Your task to perform on an android device: Open settings Image 0: 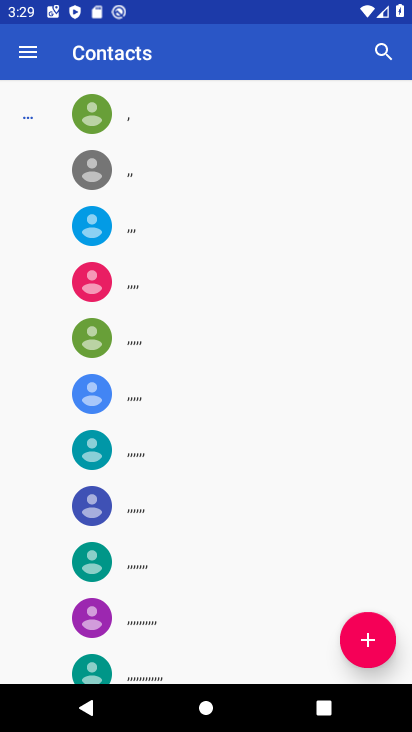
Step 0: press home button
Your task to perform on an android device: Open settings Image 1: 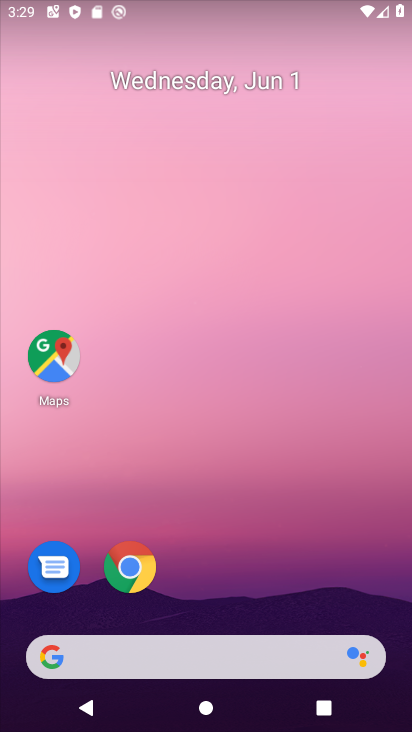
Step 1: drag from (157, 634) to (155, 137)
Your task to perform on an android device: Open settings Image 2: 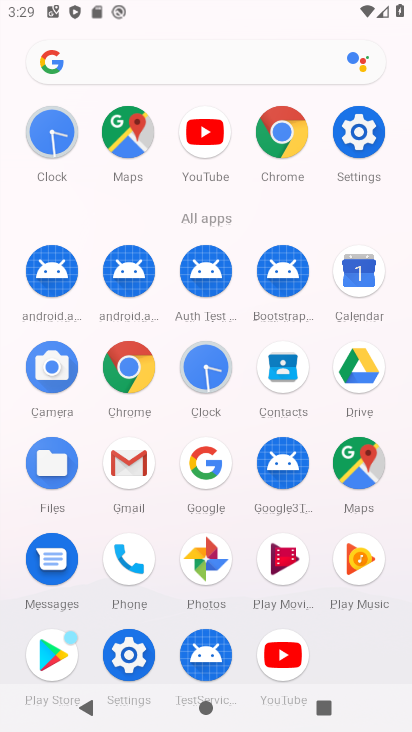
Step 2: click (348, 128)
Your task to perform on an android device: Open settings Image 3: 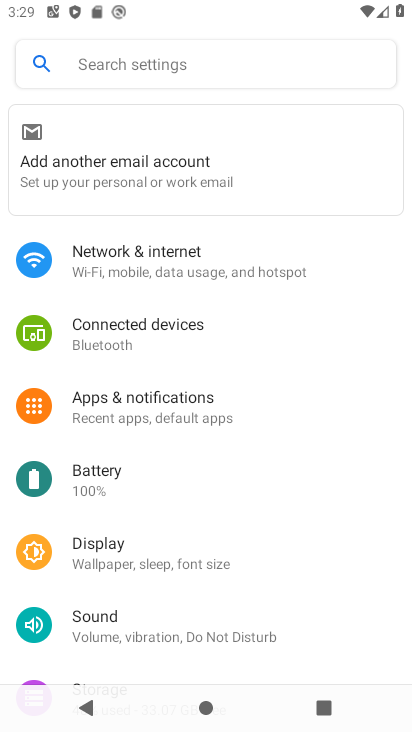
Step 3: click (360, 135)
Your task to perform on an android device: Open settings Image 4: 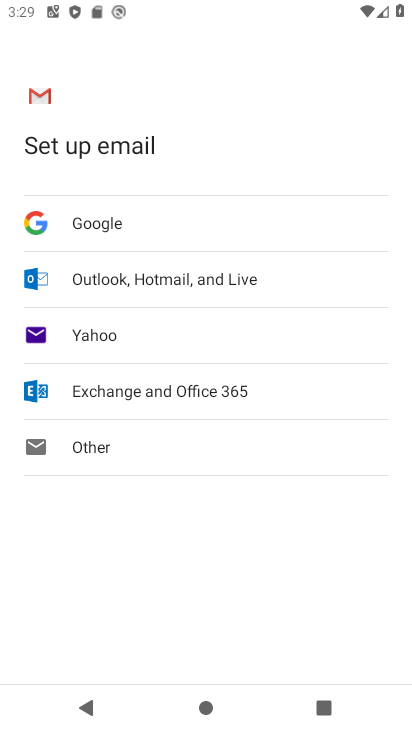
Step 4: task complete